Your task to perform on an android device: change text size in settings app Image 0: 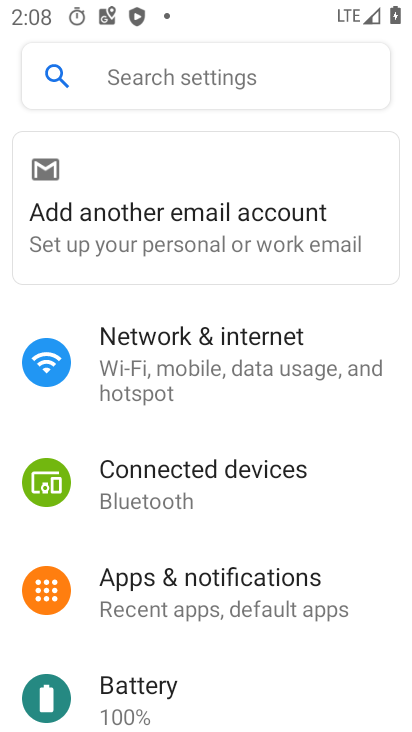
Step 0: drag from (322, 724) to (175, 58)
Your task to perform on an android device: change text size in settings app Image 1: 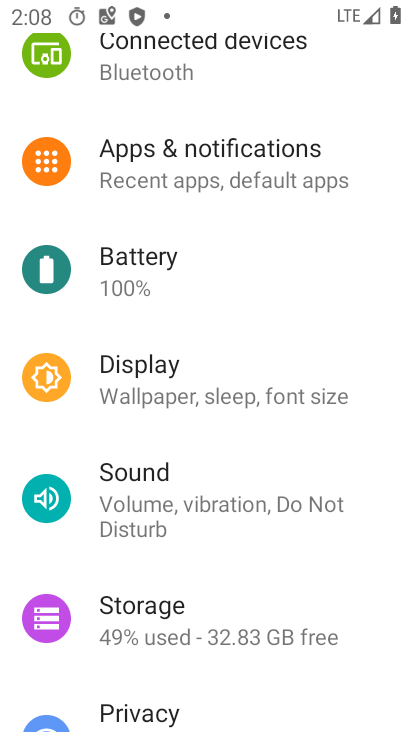
Step 1: click (190, 390)
Your task to perform on an android device: change text size in settings app Image 2: 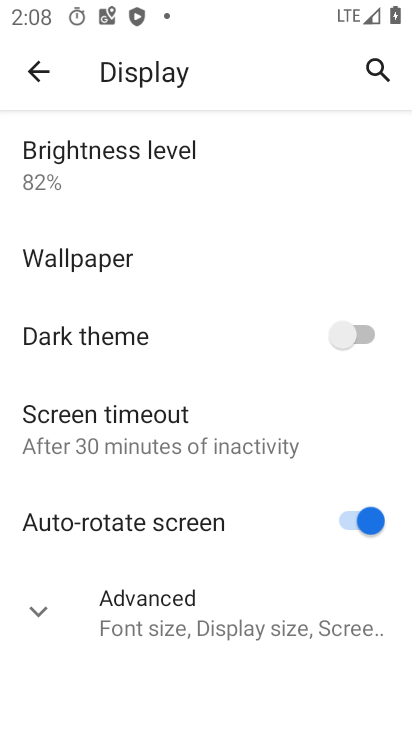
Step 2: click (181, 619)
Your task to perform on an android device: change text size in settings app Image 3: 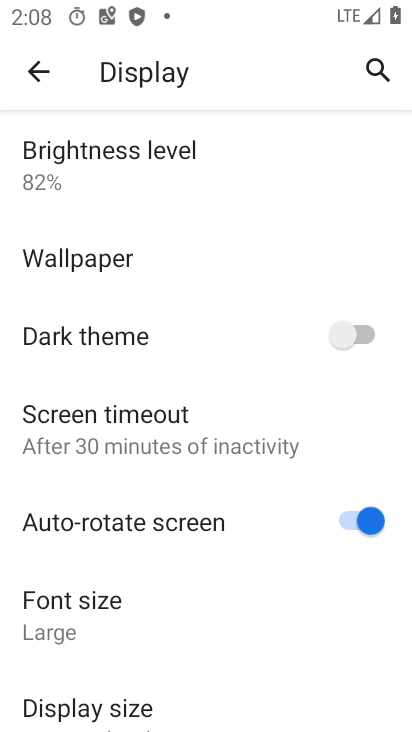
Step 3: click (103, 621)
Your task to perform on an android device: change text size in settings app Image 4: 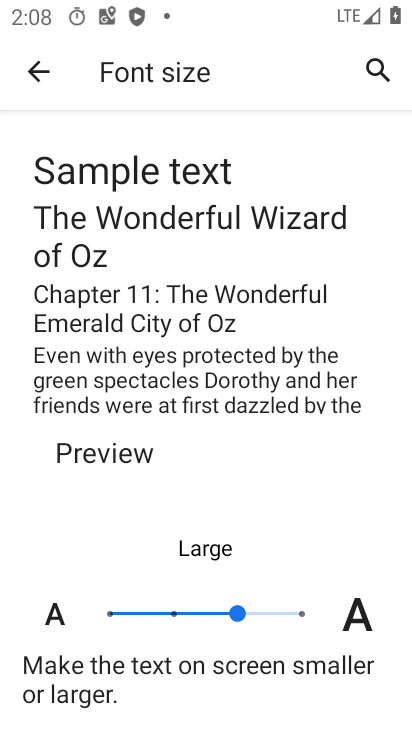
Step 4: task complete